Your task to perform on an android device: turn pop-ups on in chrome Image 0: 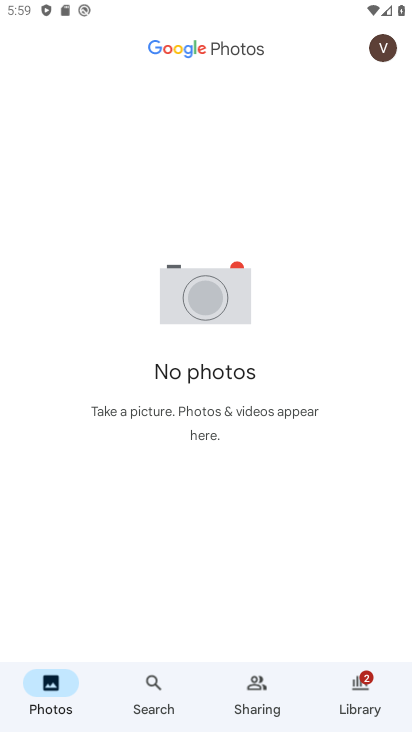
Step 0: press home button
Your task to perform on an android device: turn pop-ups on in chrome Image 1: 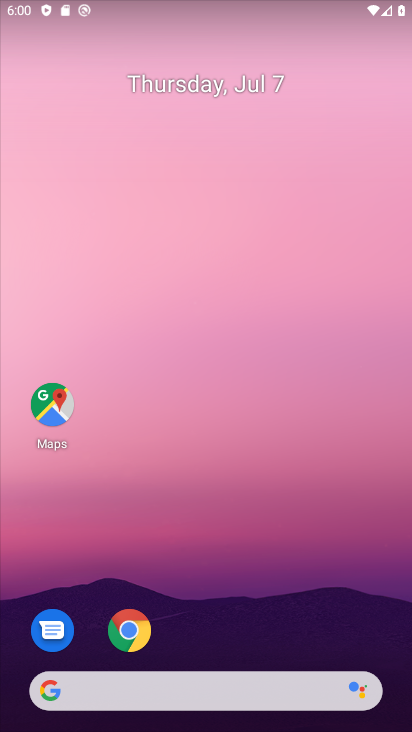
Step 1: click (139, 624)
Your task to perform on an android device: turn pop-ups on in chrome Image 2: 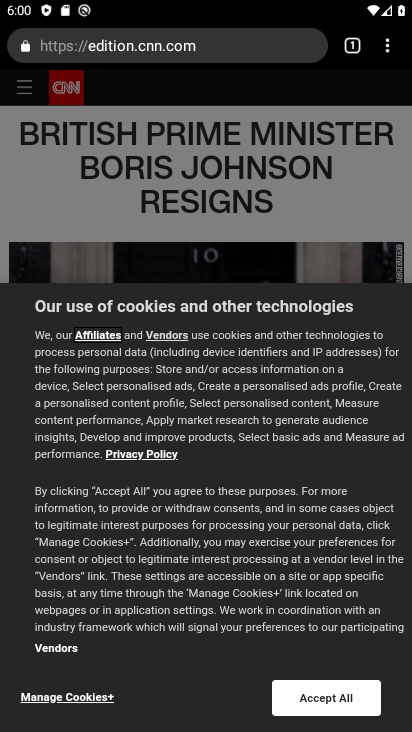
Step 2: press back button
Your task to perform on an android device: turn pop-ups on in chrome Image 3: 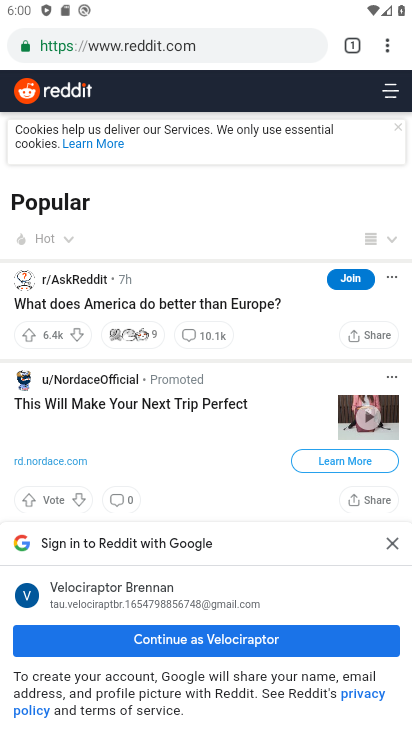
Step 3: click (389, 45)
Your task to perform on an android device: turn pop-ups on in chrome Image 4: 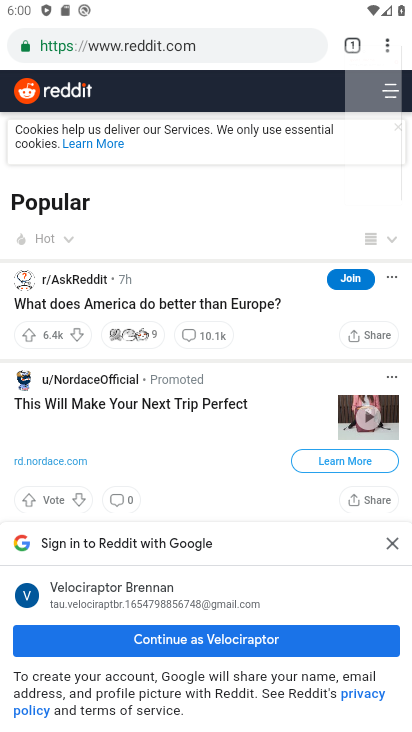
Step 4: click (389, 45)
Your task to perform on an android device: turn pop-ups on in chrome Image 5: 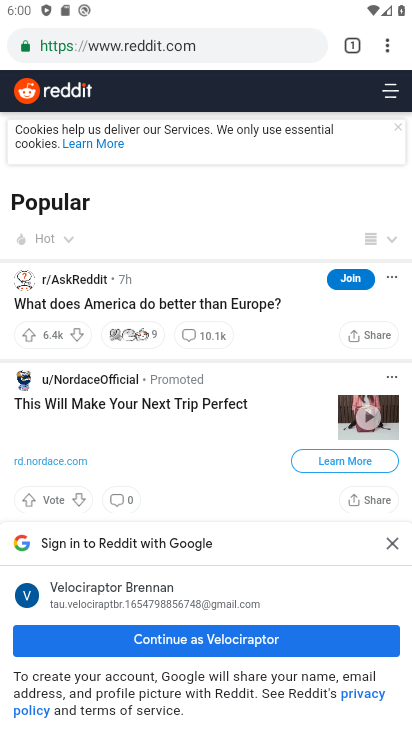
Step 5: click (389, 45)
Your task to perform on an android device: turn pop-ups on in chrome Image 6: 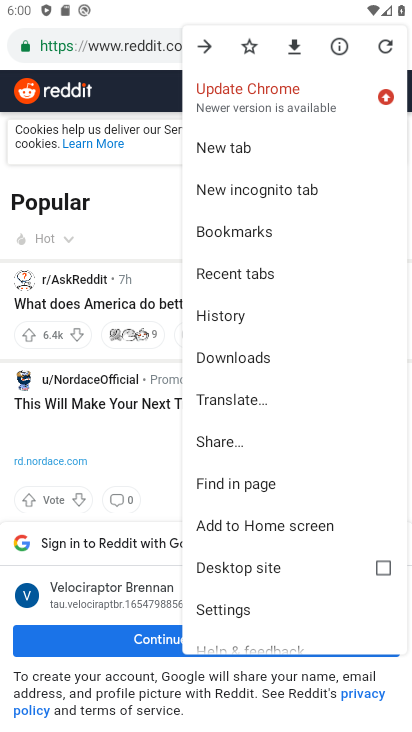
Step 6: click (237, 603)
Your task to perform on an android device: turn pop-ups on in chrome Image 7: 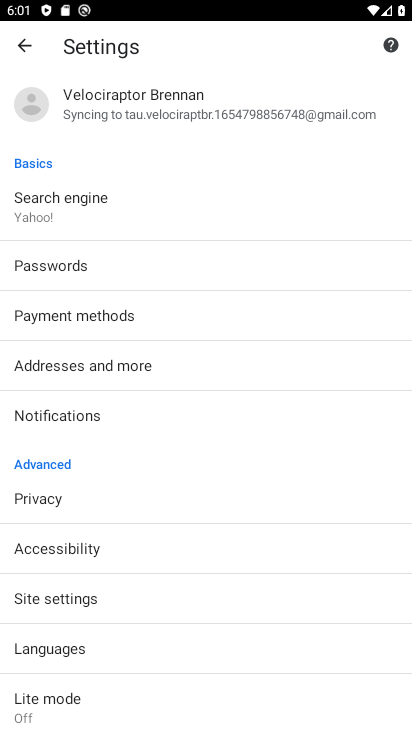
Step 7: click (69, 601)
Your task to perform on an android device: turn pop-ups on in chrome Image 8: 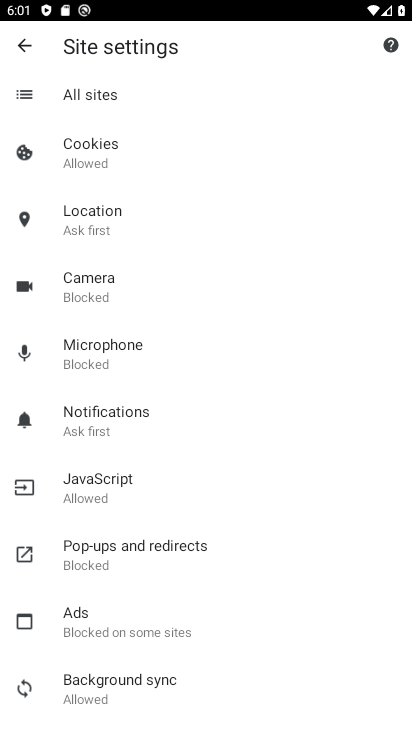
Step 8: click (113, 559)
Your task to perform on an android device: turn pop-ups on in chrome Image 9: 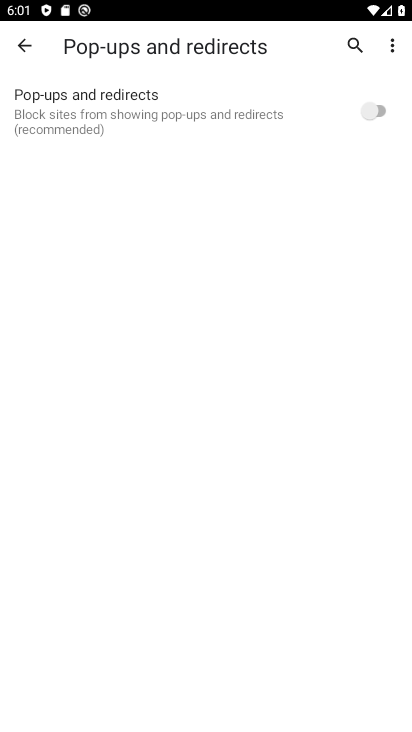
Step 9: click (386, 107)
Your task to perform on an android device: turn pop-ups on in chrome Image 10: 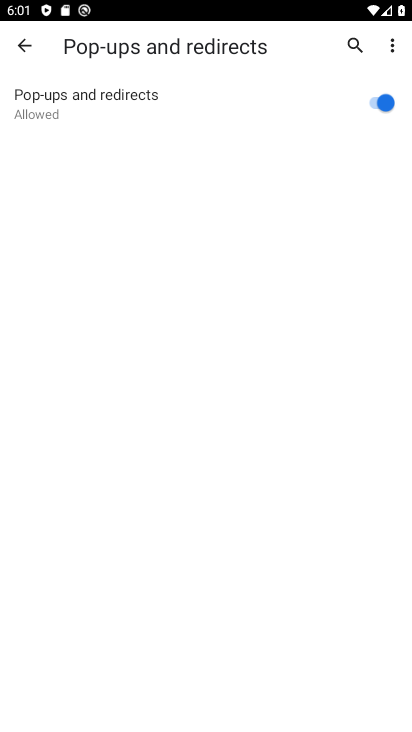
Step 10: task complete